Your task to perform on an android device: manage bookmarks in the chrome app Image 0: 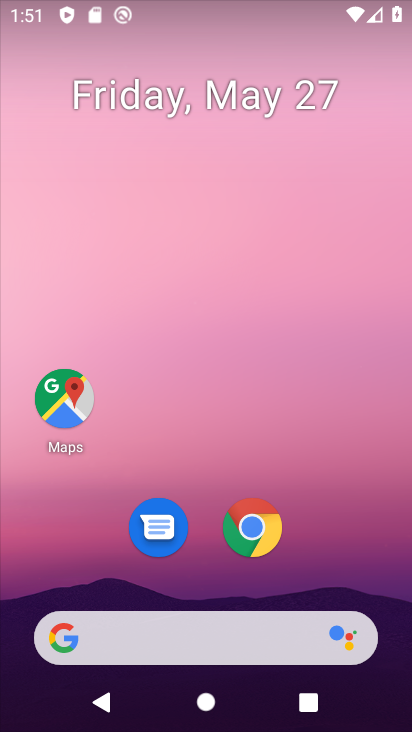
Step 0: press home button
Your task to perform on an android device: manage bookmarks in the chrome app Image 1: 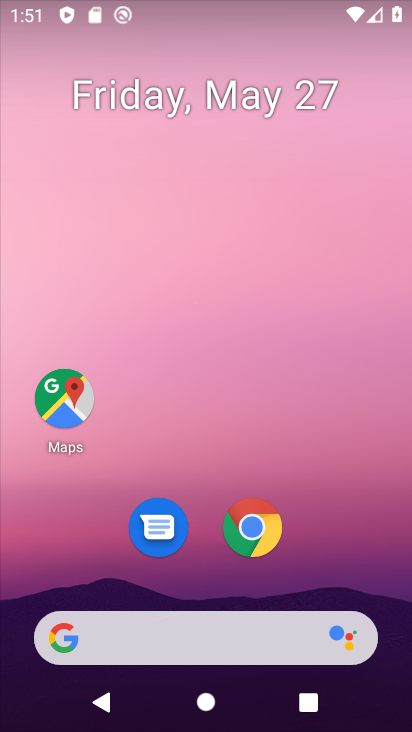
Step 1: drag from (214, 566) to (287, 123)
Your task to perform on an android device: manage bookmarks in the chrome app Image 2: 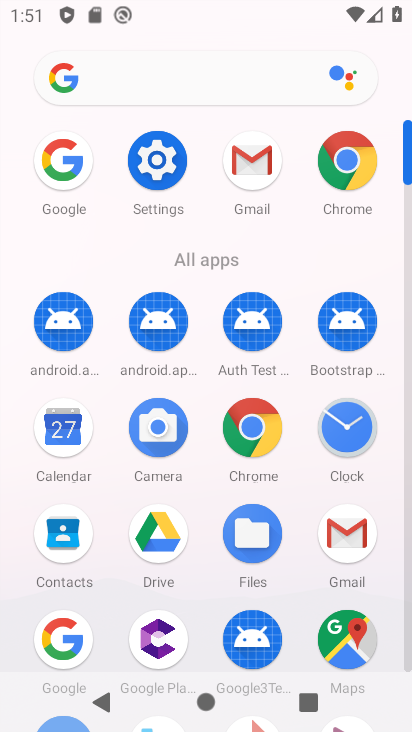
Step 2: click (258, 428)
Your task to perform on an android device: manage bookmarks in the chrome app Image 3: 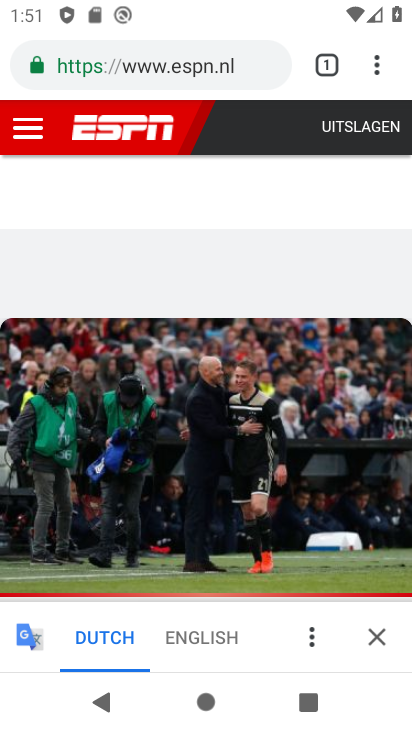
Step 3: click (378, 68)
Your task to perform on an android device: manage bookmarks in the chrome app Image 4: 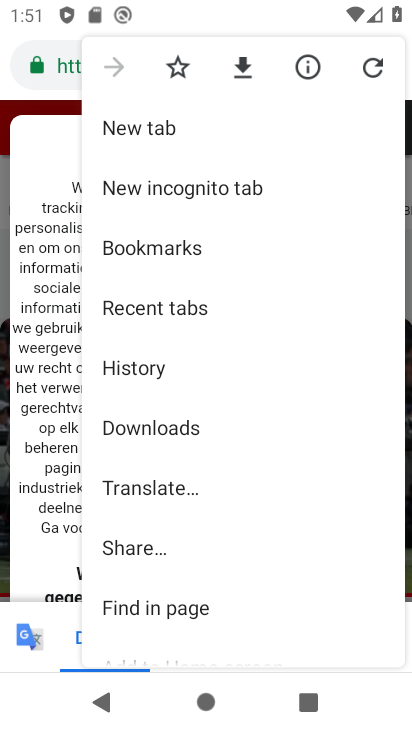
Step 4: click (130, 257)
Your task to perform on an android device: manage bookmarks in the chrome app Image 5: 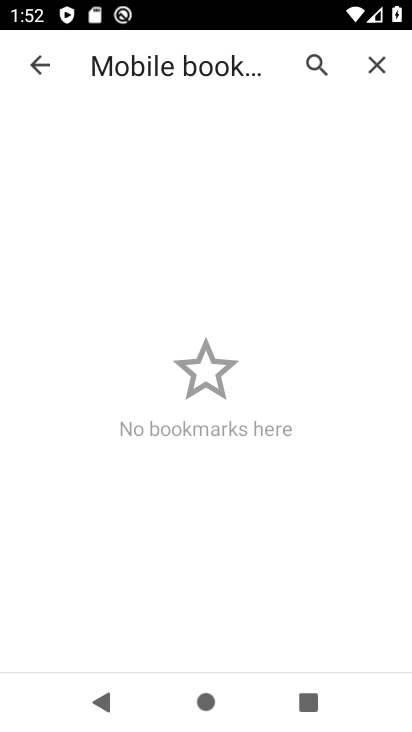
Step 5: task complete